Your task to perform on an android device: Search for seafood restaurants on Google Maps Image 0: 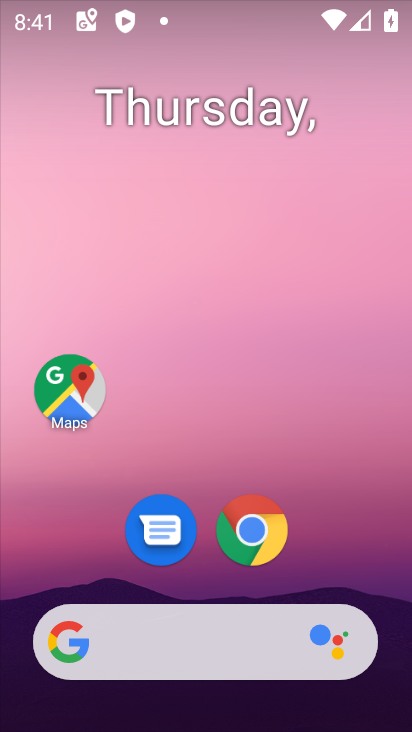
Step 0: drag from (203, 546) to (291, 708)
Your task to perform on an android device: Search for seafood restaurants on Google Maps Image 1: 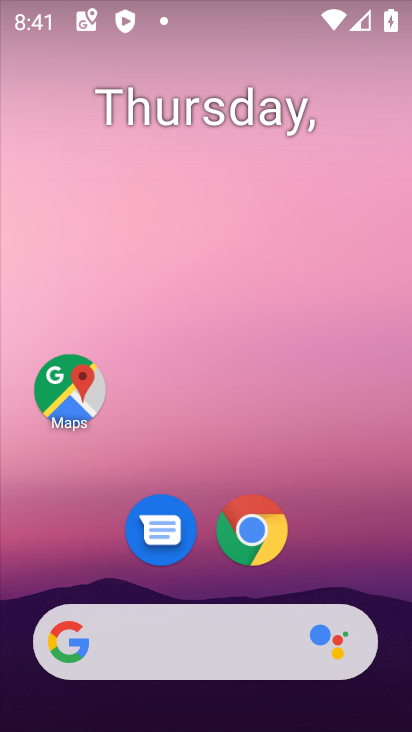
Step 1: drag from (211, 620) to (190, 124)
Your task to perform on an android device: Search for seafood restaurants on Google Maps Image 2: 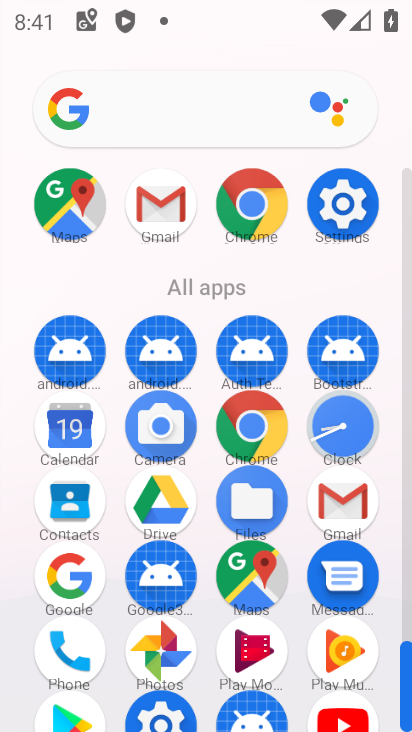
Step 2: click (257, 599)
Your task to perform on an android device: Search for seafood restaurants on Google Maps Image 3: 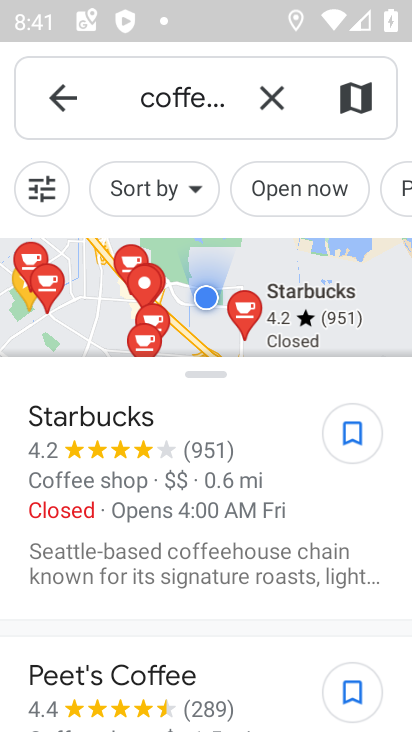
Step 3: click (257, 106)
Your task to perform on an android device: Search for seafood restaurants on Google Maps Image 4: 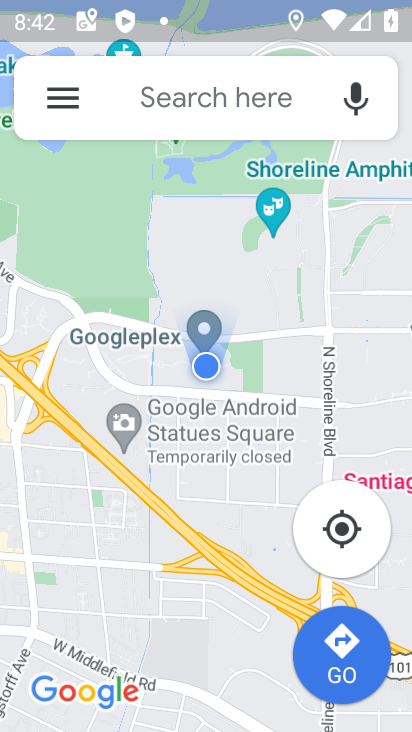
Step 4: click (260, 107)
Your task to perform on an android device: Search for seafood restaurants on Google Maps Image 5: 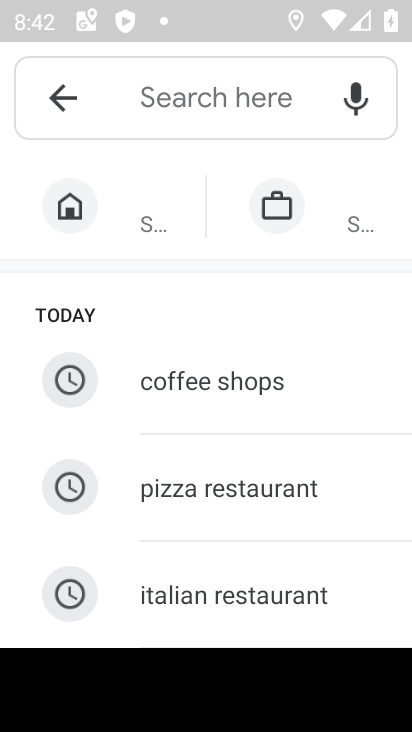
Step 5: type "seafood restaurants"
Your task to perform on an android device: Search for seafood restaurants on Google Maps Image 6: 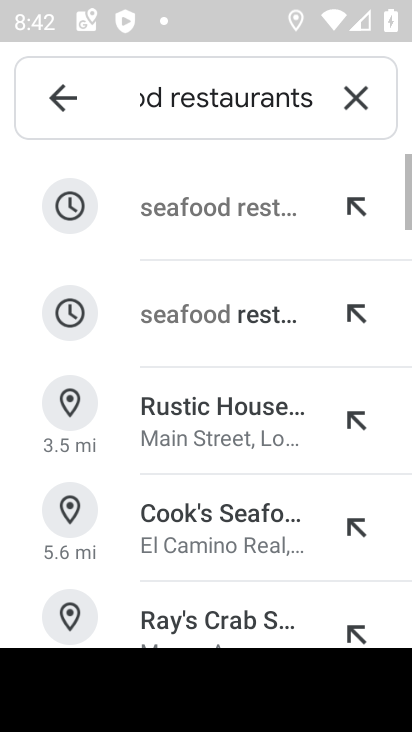
Step 6: click (233, 219)
Your task to perform on an android device: Search for seafood restaurants on Google Maps Image 7: 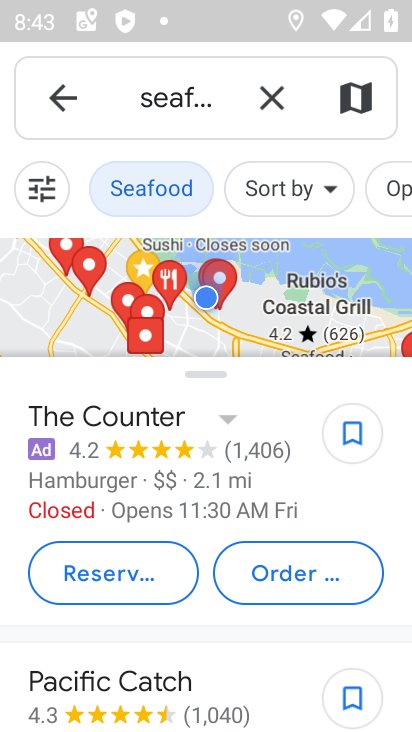
Step 7: task complete